Your task to perform on an android device: Search for Mexican restaurants on Maps Image 0: 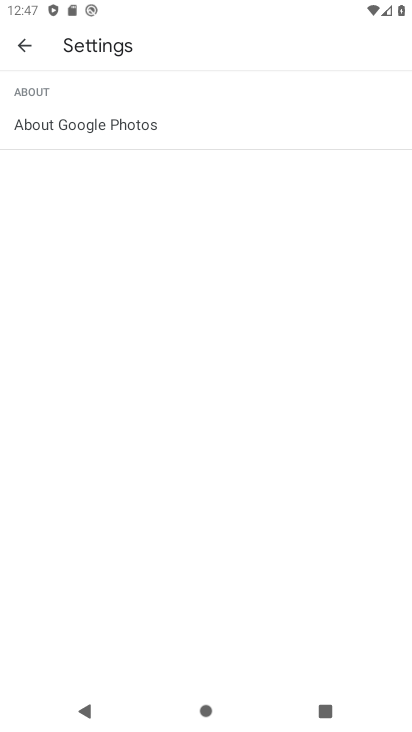
Step 0: press home button
Your task to perform on an android device: Search for Mexican restaurants on Maps Image 1: 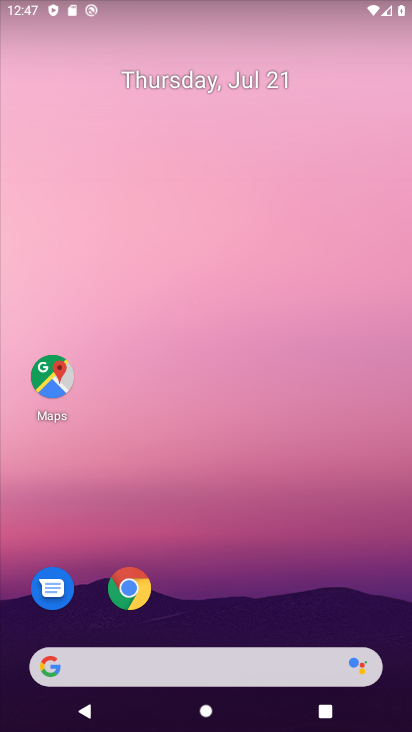
Step 1: click (54, 374)
Your task to perform on an android device: Search for Mexican restaurants on Maps Image 2: 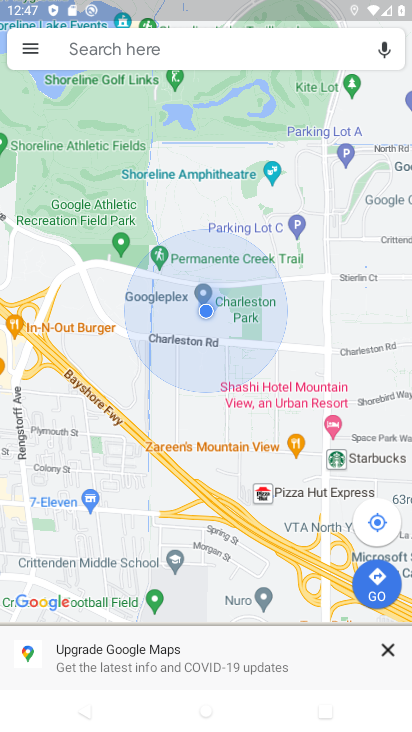
Step 2: click (63, 35)
Your task to perform on an android device: Search for Mexican restaurants on Maps Image 3: 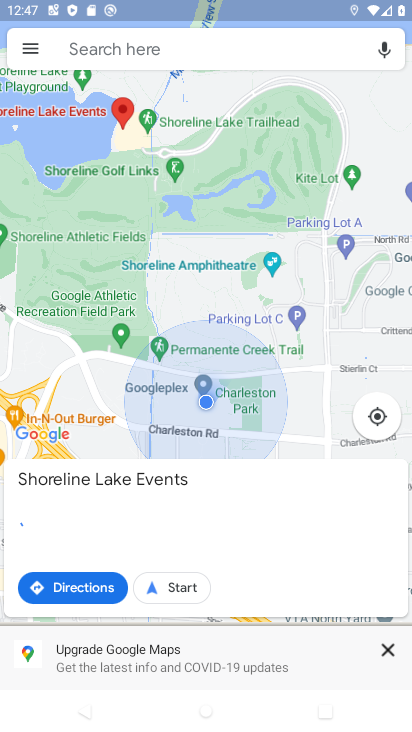
Step 3: type "Mexican restaurants "
Your task to perform on an android device: Search for Mexican restaurants on Maps Image 4: 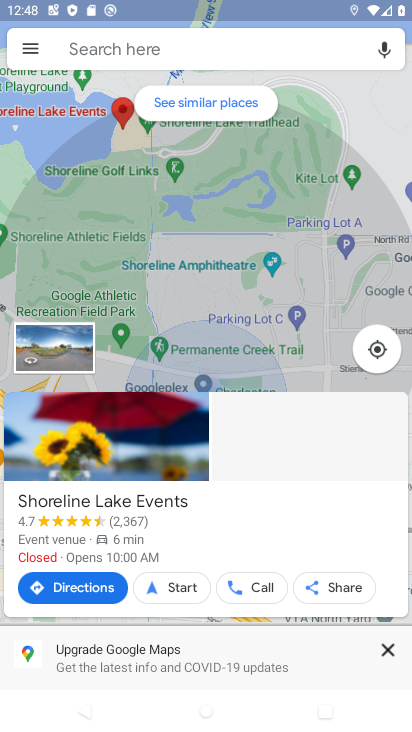
Step 4: press enter
Your task to perform on an android device: Search for Mexican restaurants on Maps Image 5: 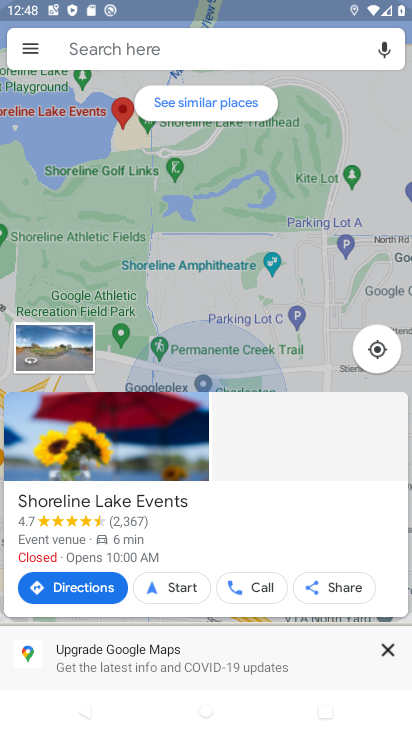
Step 5: type ""
Your task to perform on an android device: Search for Mexican restaurants on Maps Image 6: 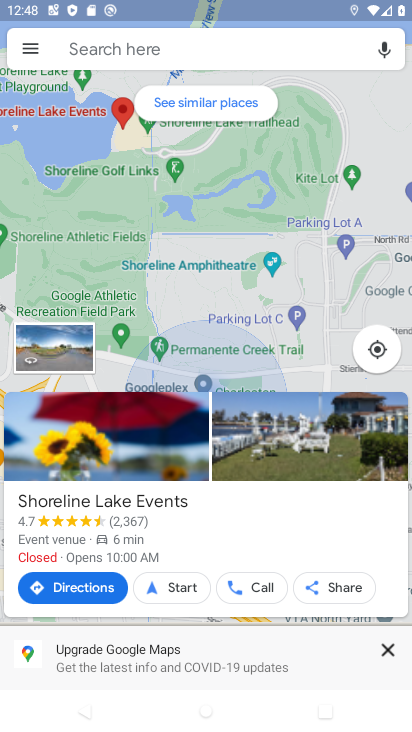
Step 6: task complete